Your task to perform on an android device: Search for asus zenbook on walmart.com, select the first entry, add it to the cart, then select checkout. Image 0: 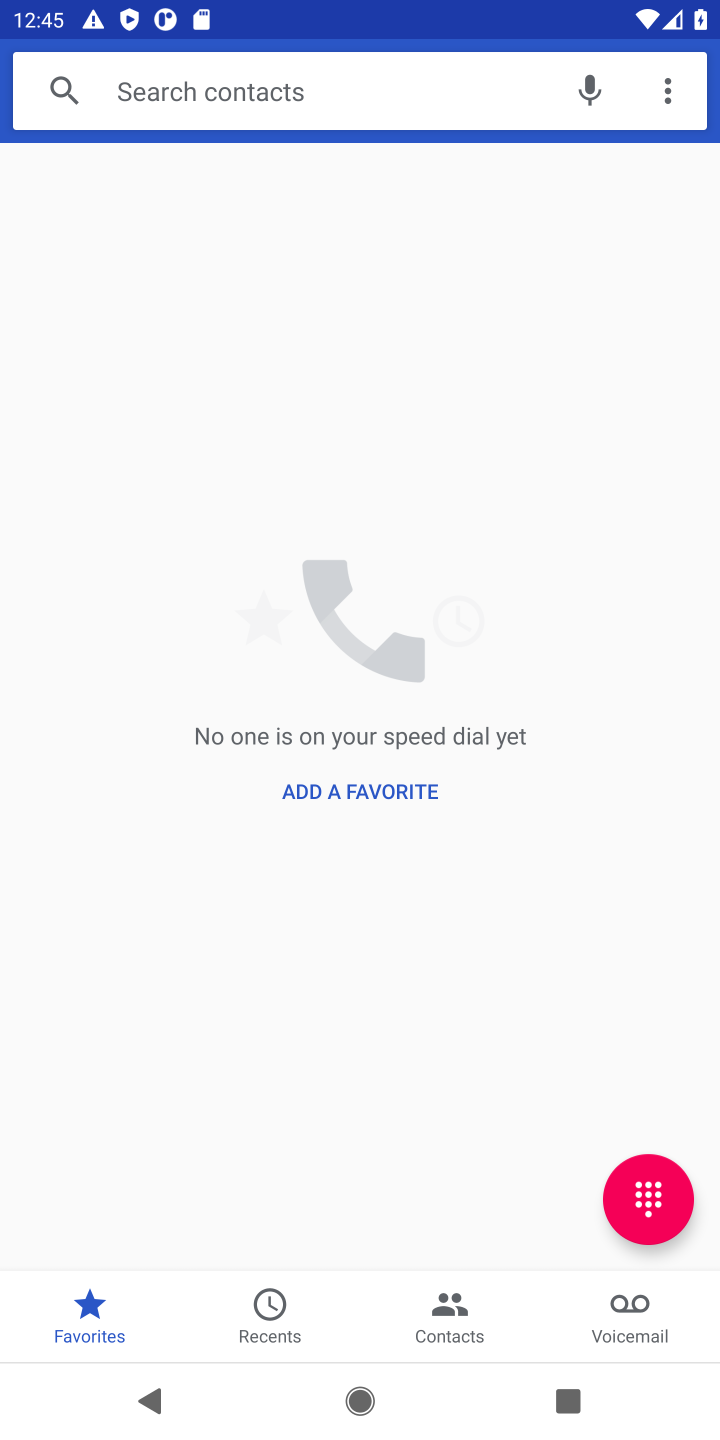
Step 0: press home button
Your task to perform on an android device: Search for asus zenbook on walmart.com, select the first entry, add it to the cart, then select checkout. Image 1: 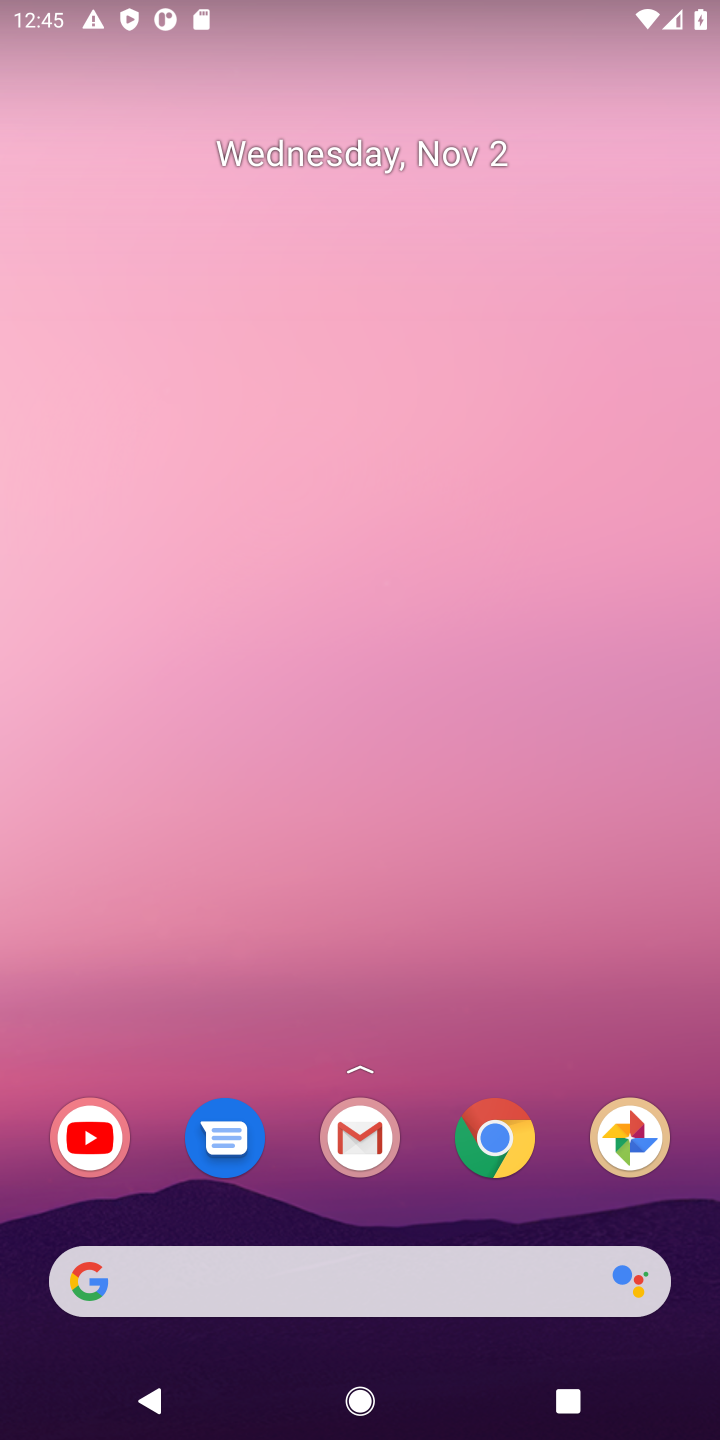
Step 1: click (121, 1279)
Your task to perform on an android device: Search for asus zenbook on walmart.com, select the first entry, add it to the cart, then select checkout. Image 2: 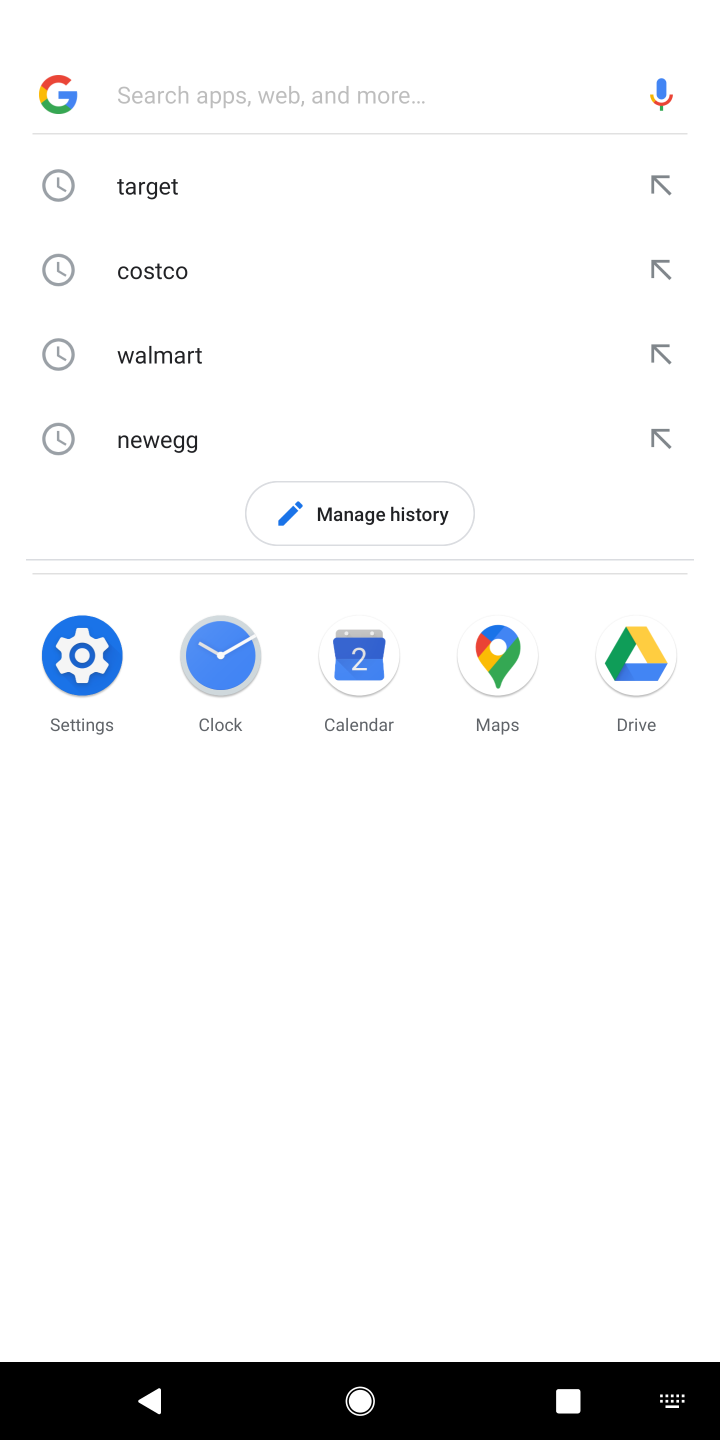
Step 2: type " walmart.com"
Your task to perform on an android device: Search for asus zenbook on walmart.com, select the first entry, add it to the cart, then select checkout. Image 3: 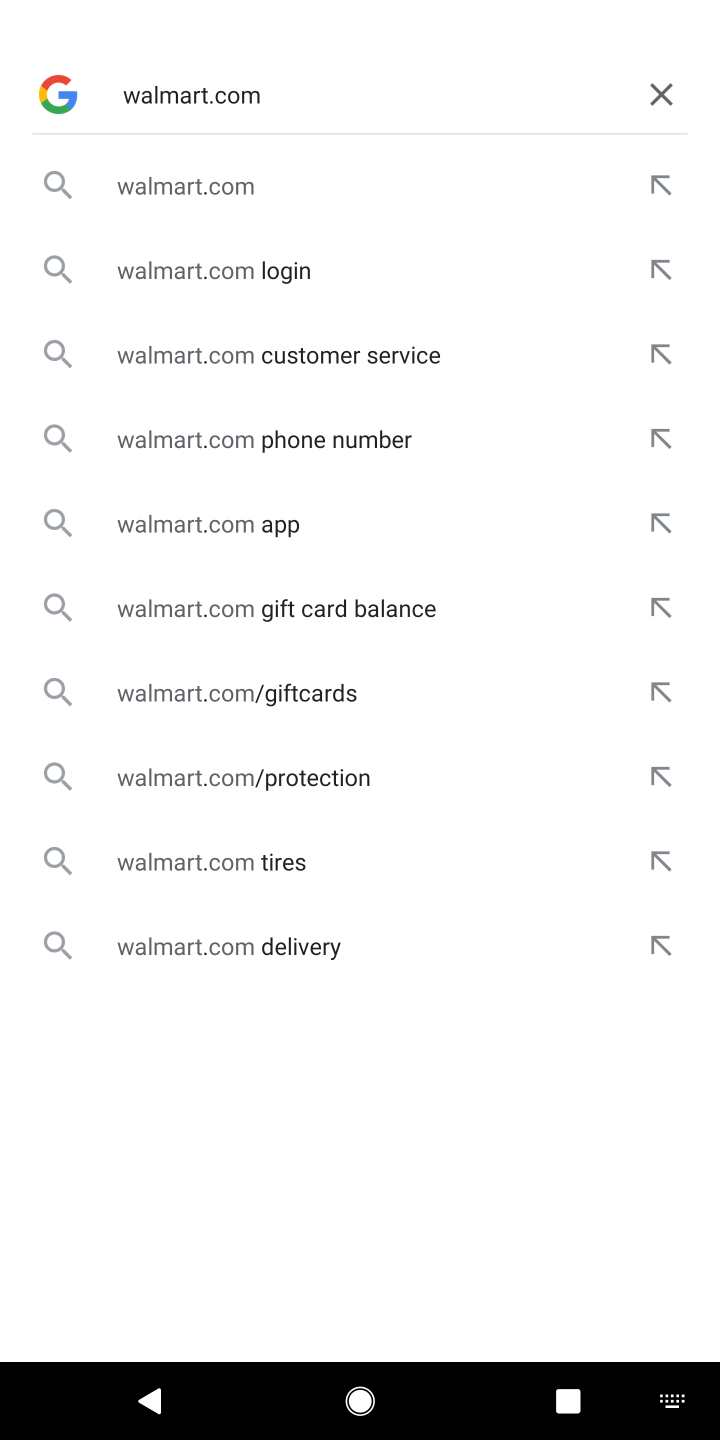
Step 3: press enter
Your task to perform on an android device: Search for asus zenbook on walmart.com, select the first entry, add it to the cart, then select checkout. Image 4: 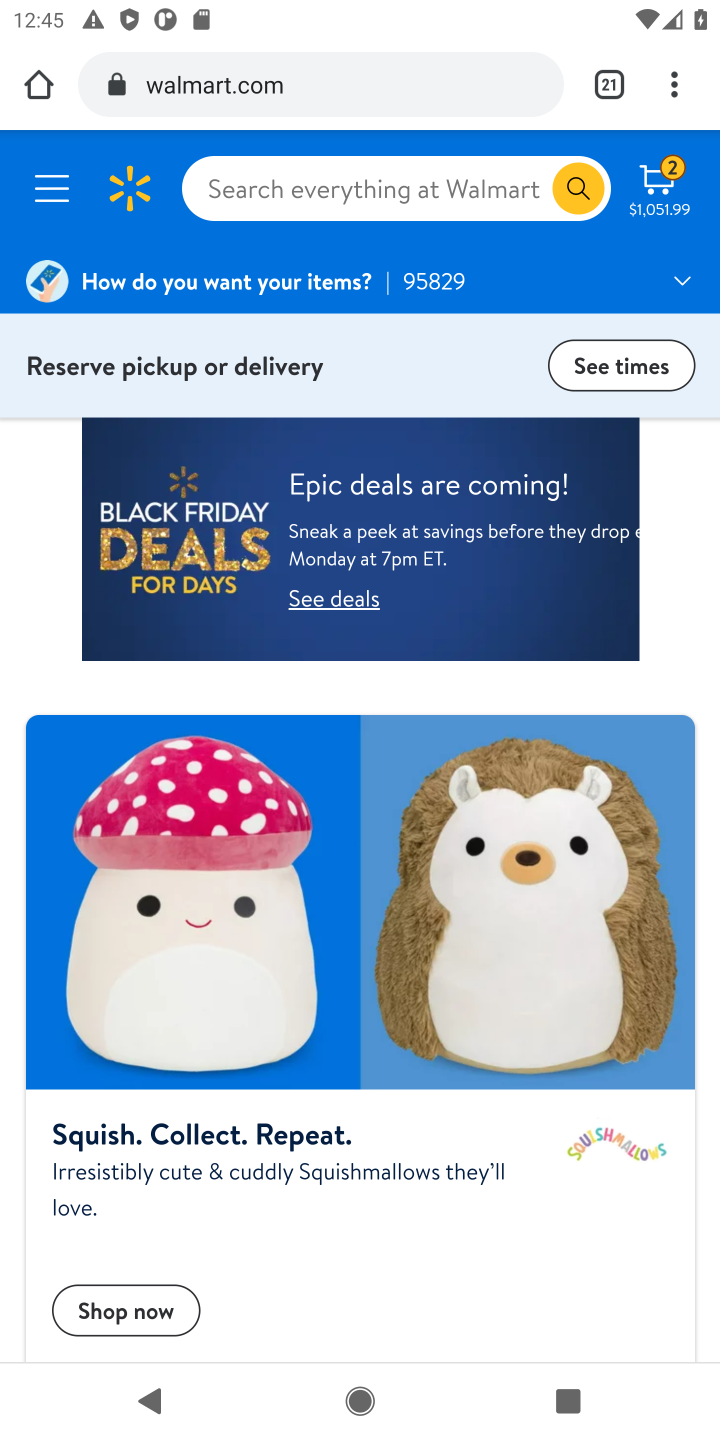
Step 4: click (227, 186)
Your task to perform on an android device: Search for asus zenbook on walmart.com, select the first entry, add it to the cart, then select checkout. Image 5: 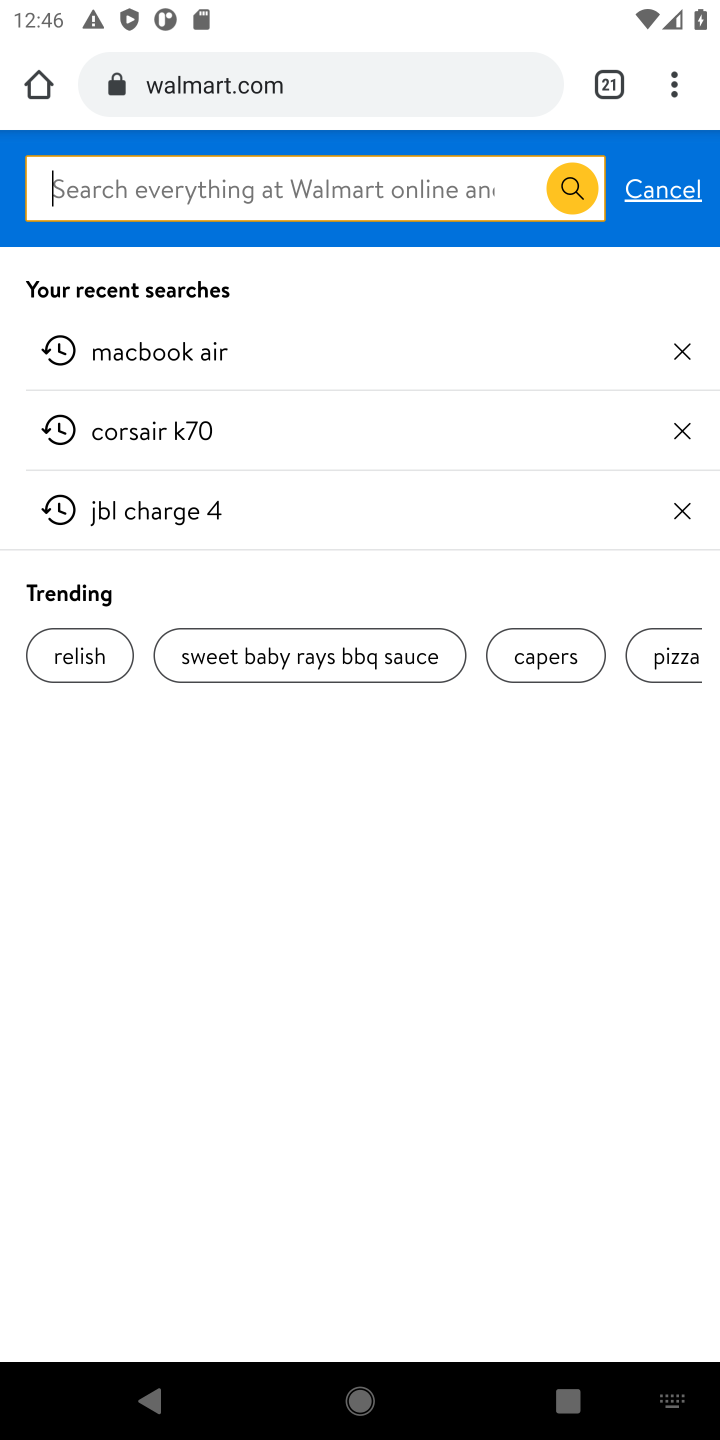
Step 5: type "asus zenbook"
Your task to perform on an android device: Search for asus zenbook on walmart.com, select the first entry, add it to the cart, then select checkout. Image 6: 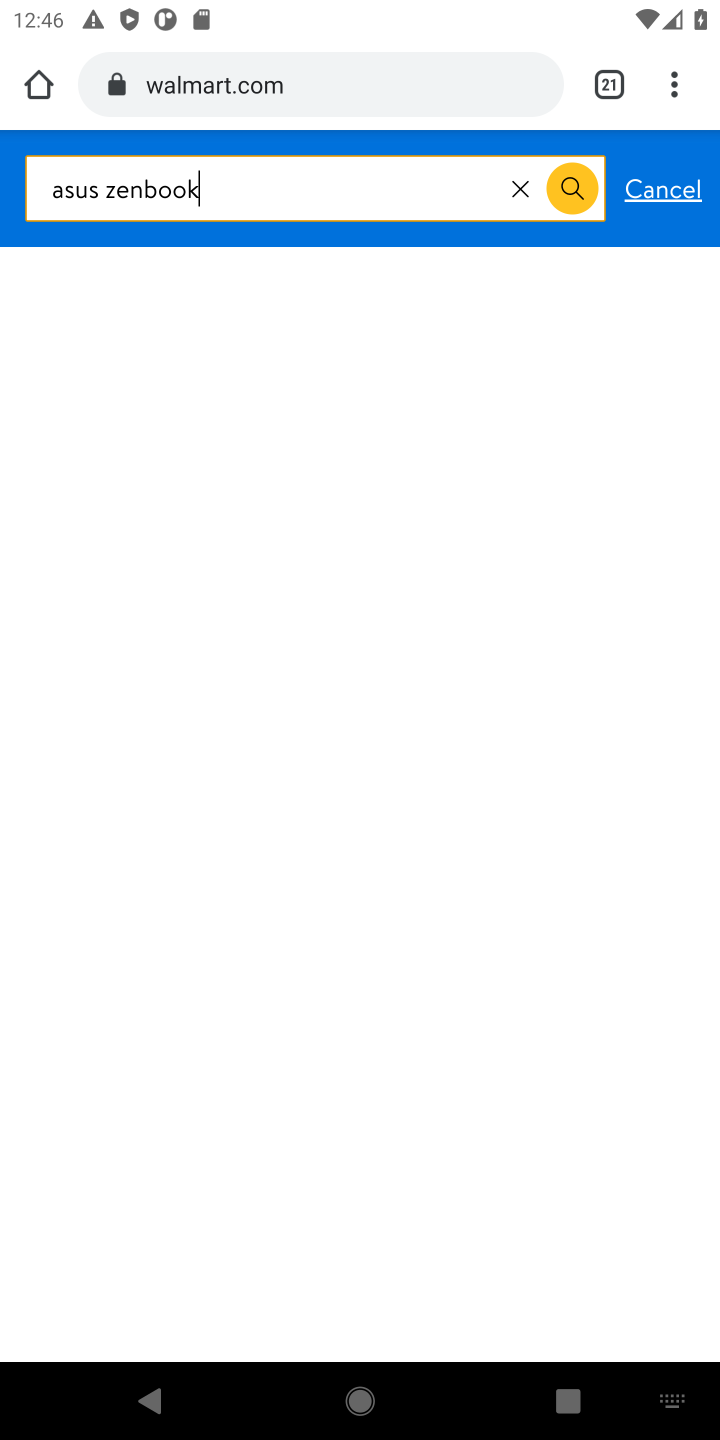
Step 6: press enter
Your task to perform on an android device: Search for asus zenbook on walmart.com, select the first entry, add it to the cart, then select checkout. Image 7: 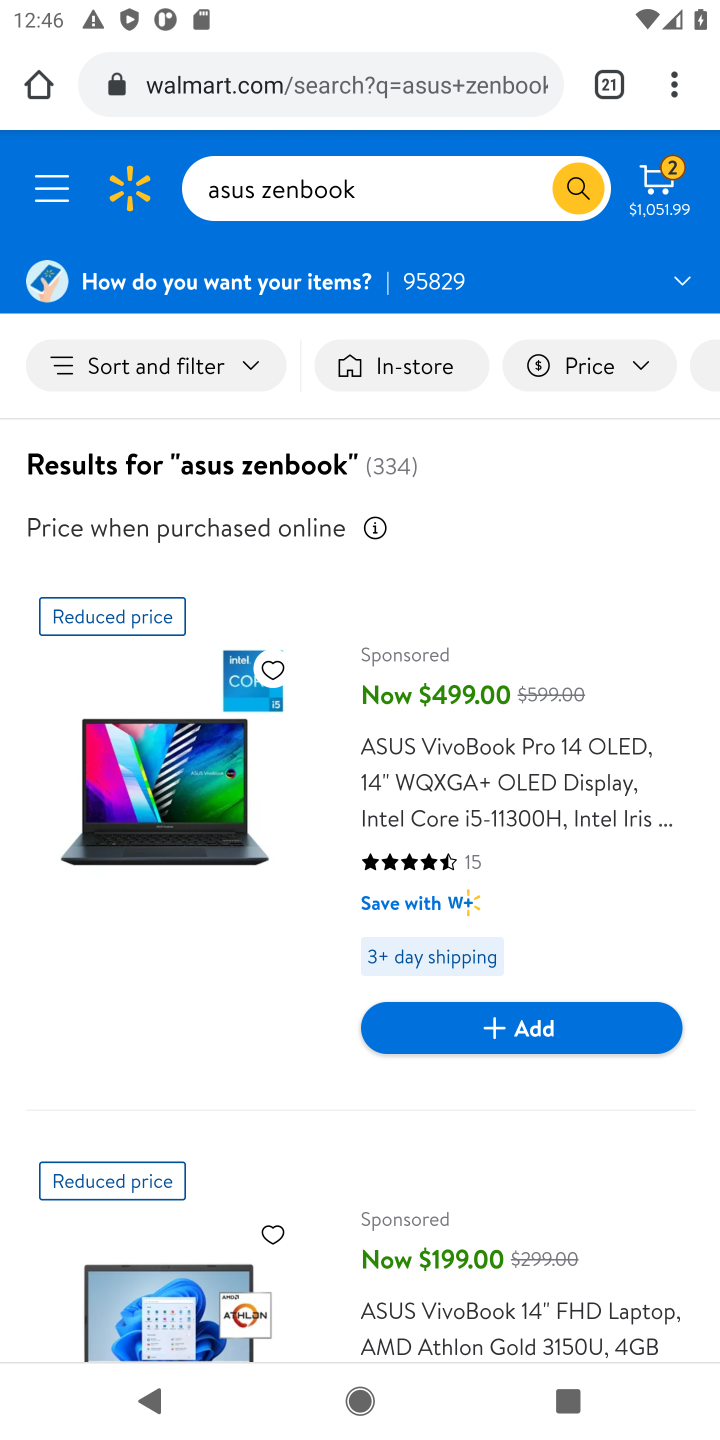
Step 7: drag from (480, 1130) to (514, 695)
Your task to perform on an android device: Search for asus zenbook on walmart.com, select the first entry, add it to the cart, then select checkout. Image 8: 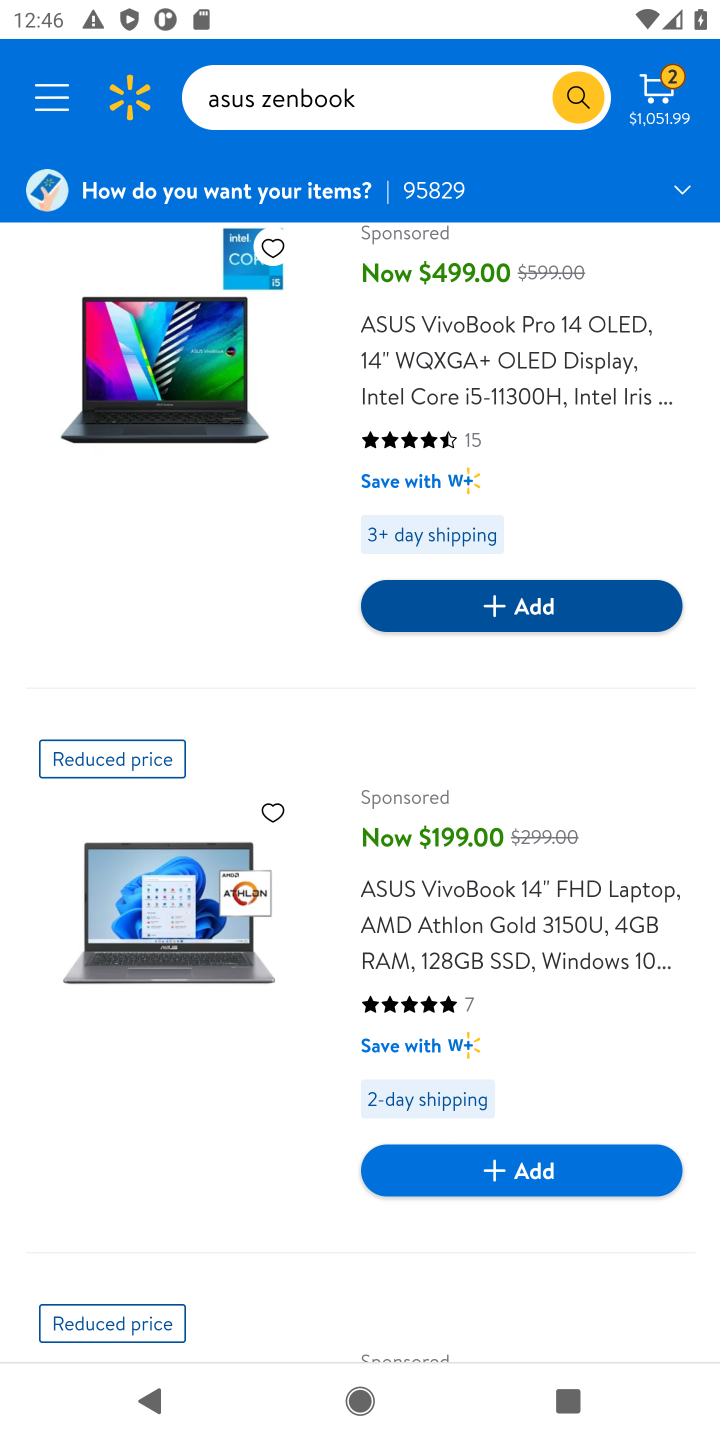
Step 8: drag from (460, 1055) to (525, 648)
Your task to perform on an android device: Search for asus zenbook on walmart.com, select the first entry, add it to the cart, then select checkout. Image 9: 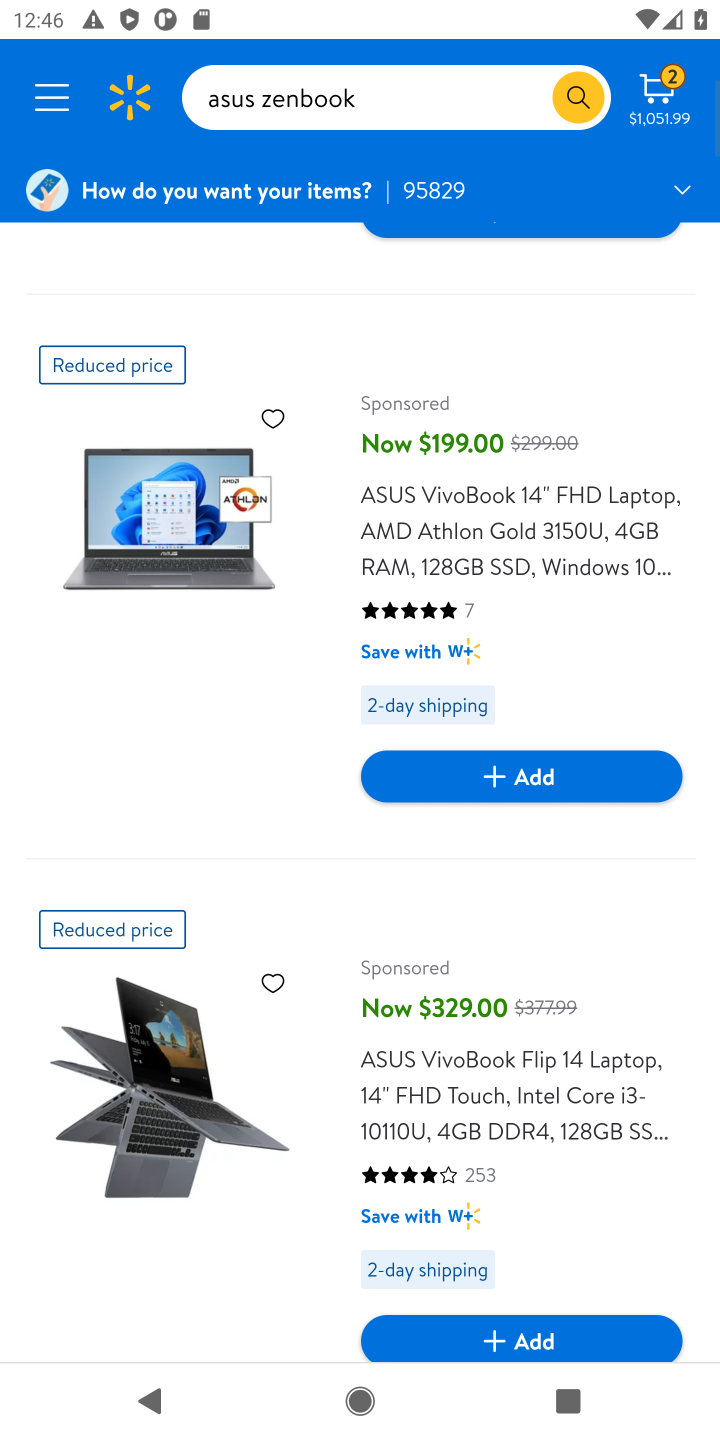
Step 9: drag from (490, 1057) to (510, 729)
Your task to perform on an android device: Search for asus zenbook on walmart.com, select the first entry, add it to the cart, then select checkout. Image 10: 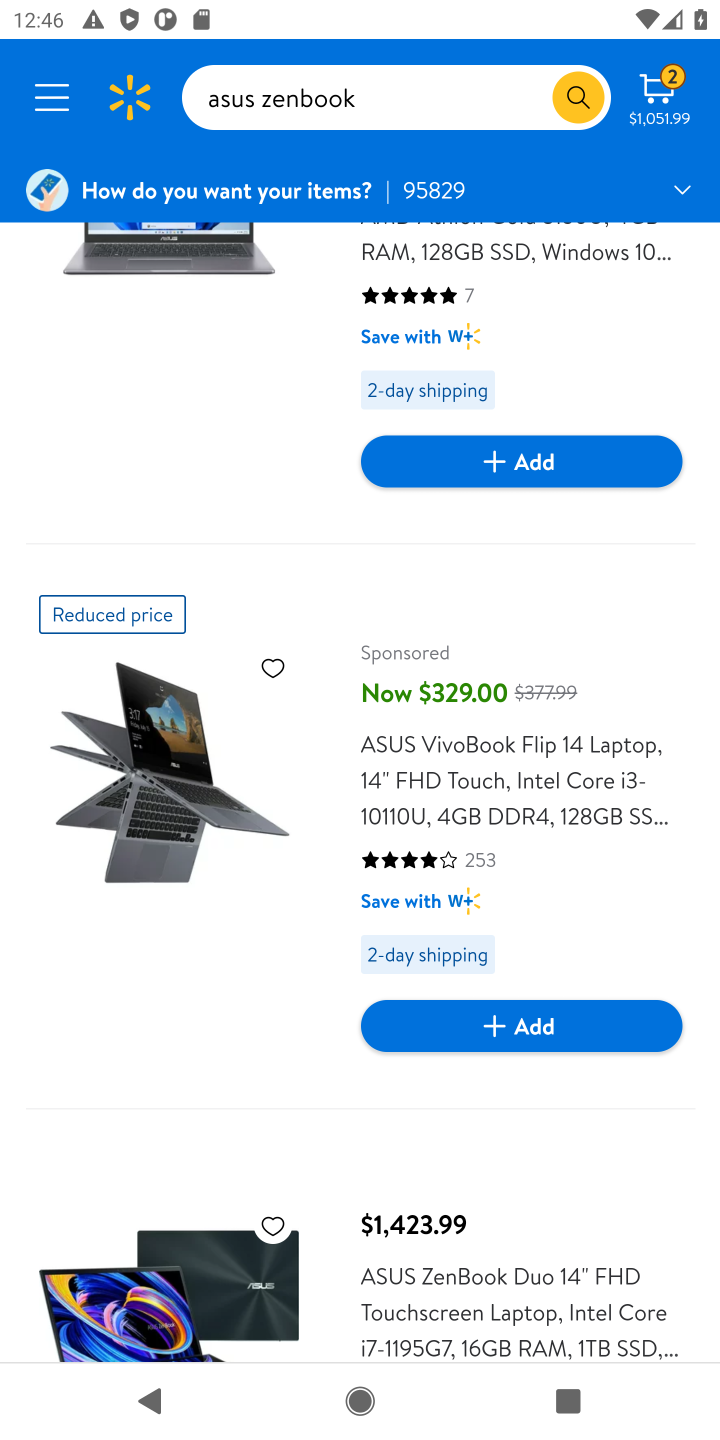
Step 10: drag from (491, 1179) to (527, 836)
Your task to perform on an android device: Search for asus zenbook on walmart.com, select the first entry, add it to the cart, then select checkout. Image 11: 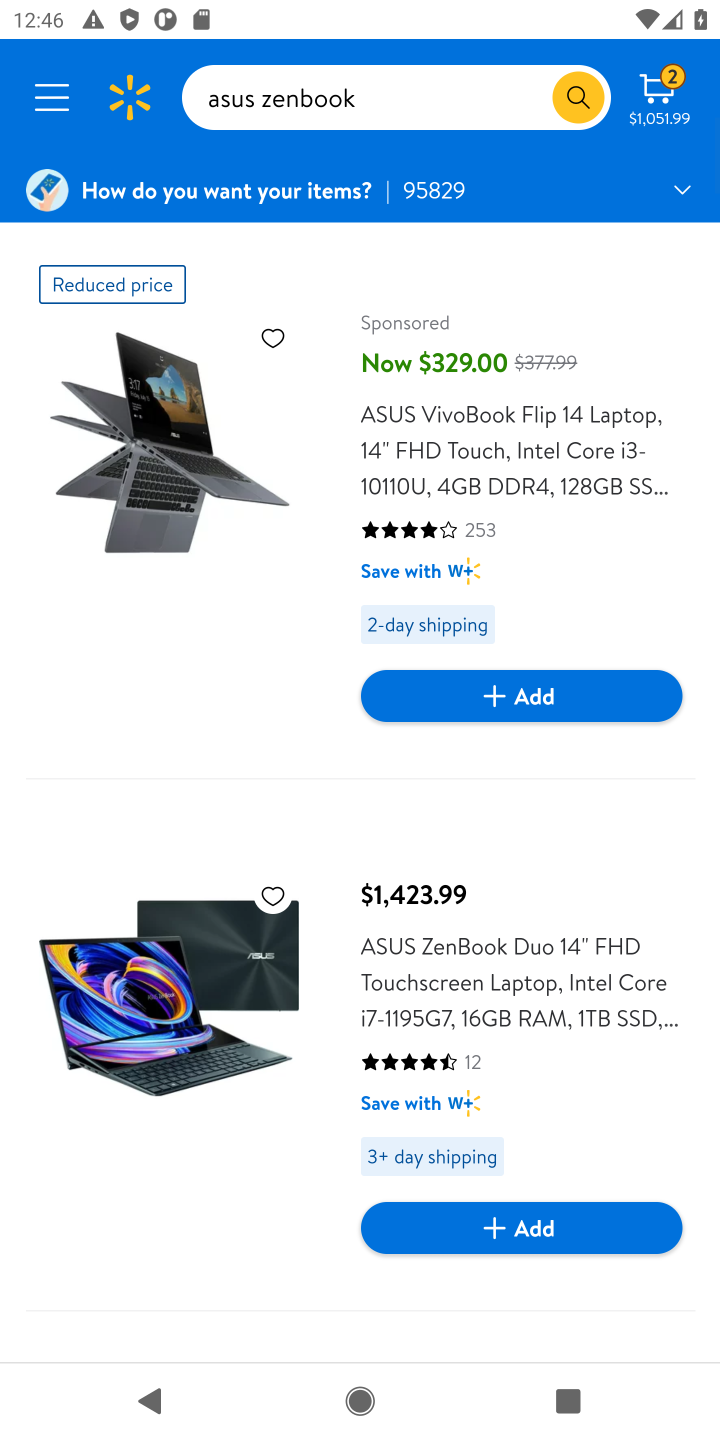
Step 11: drag from (502, 1125) to (529, 780)
Your task to perform on an android device: Search for asus zenbook on walmart.com, select the first entry, add it to the cart, then select checkout. Image 12: 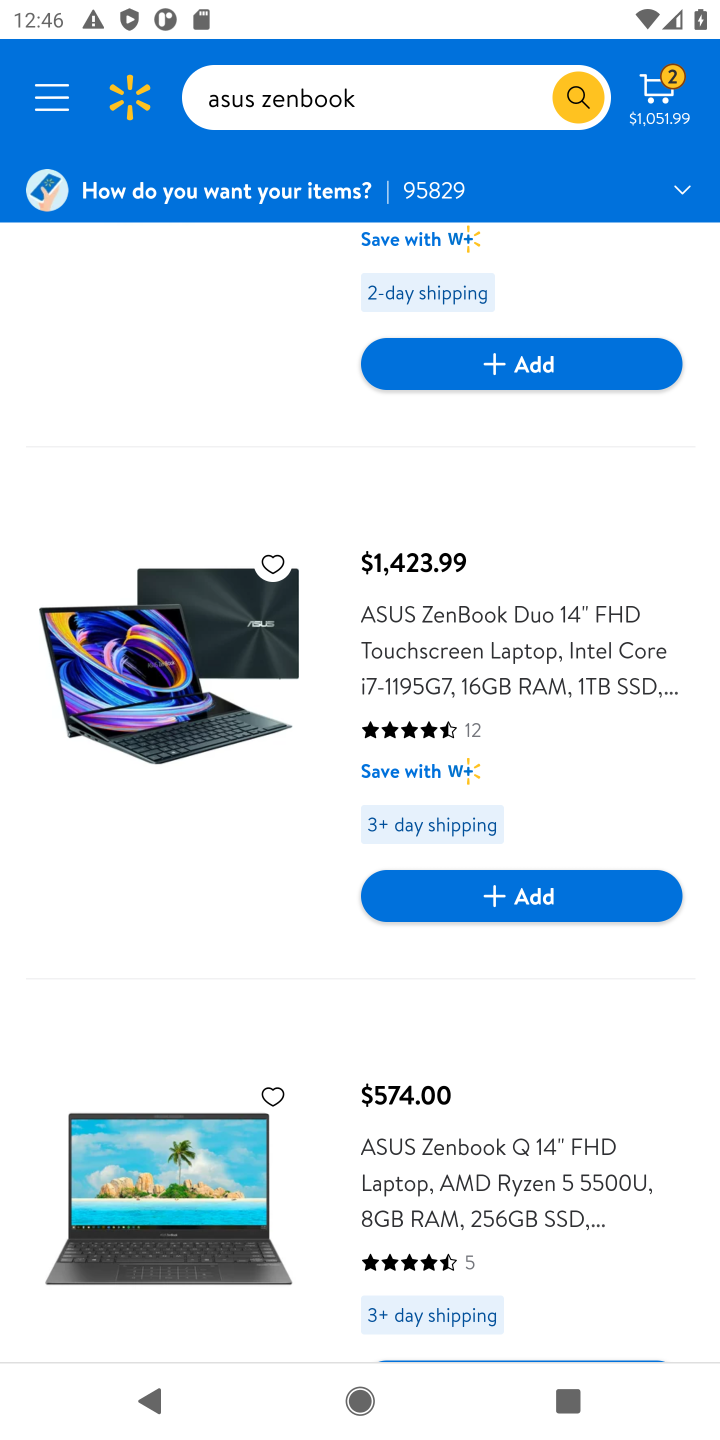
Step 12: drag from (469, 1085) to (534, 759)
Your task to perform on an android device: Search for asus zenbook on walmart.com, select the first entry, add it to the cart, then select checkout. Image 13: 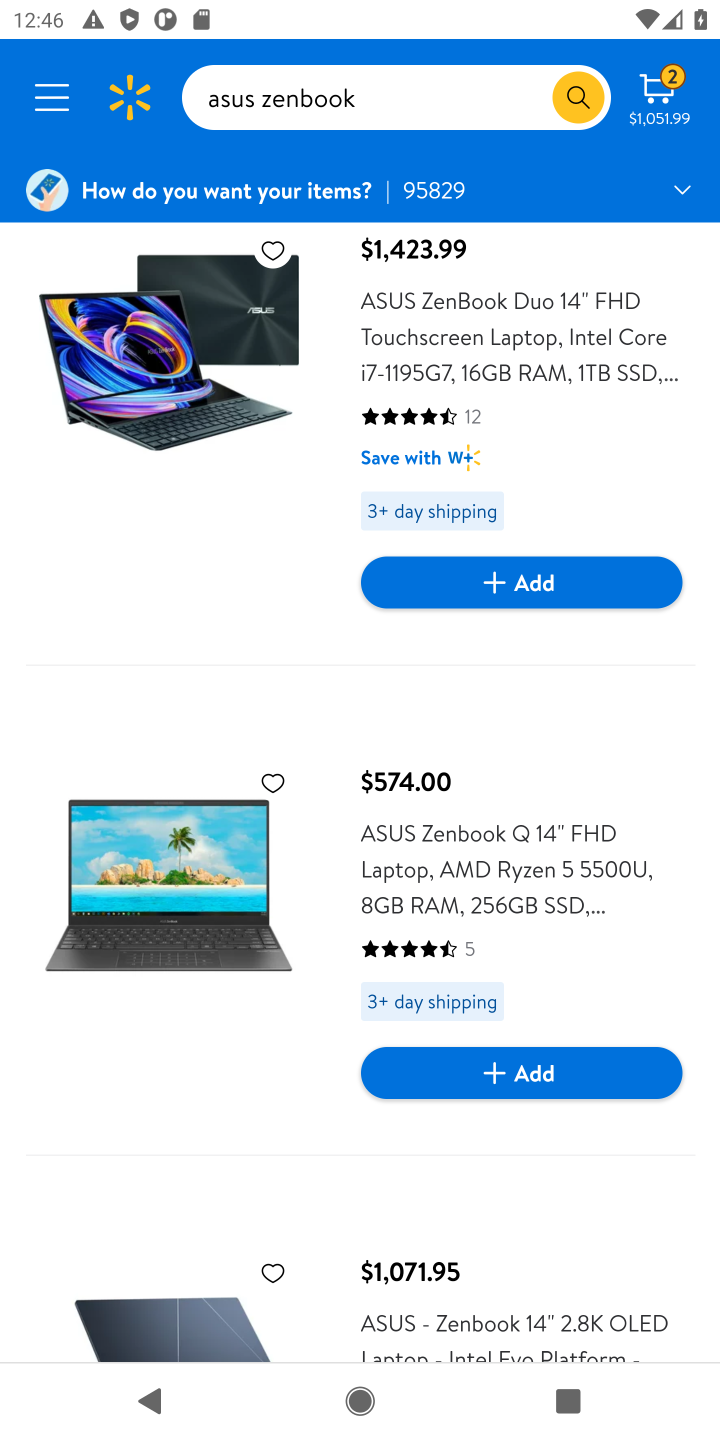
Step 13: click (531, 1085)
Your task to perform on an android device: Search for asus zenbook on walmart.com, select the first entry, add it to the cart, then select checkout. Image 14: 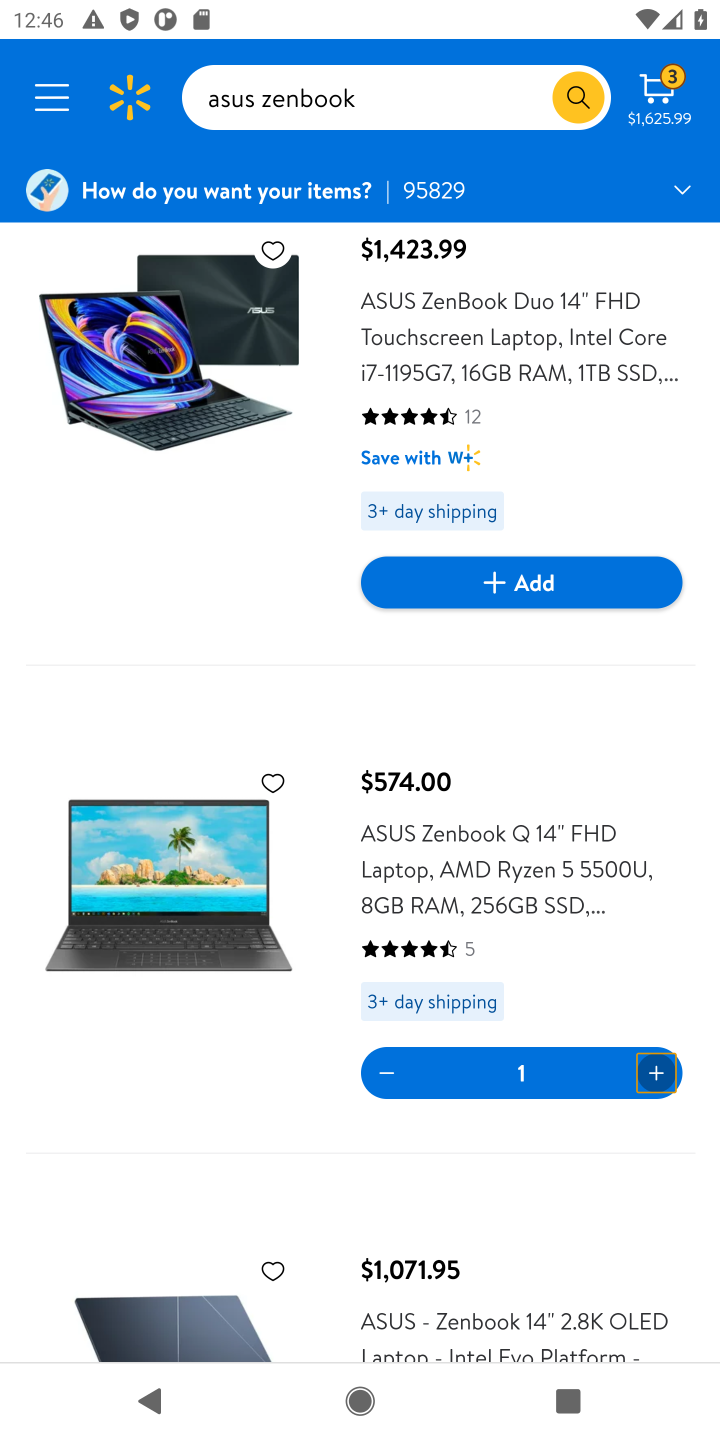
Step 14: click (666, 85)
Your task to perform on an android device: Search for asus zenbook on walmart.com, select the first entry, add it to the cart, then select checkout. Image 15: 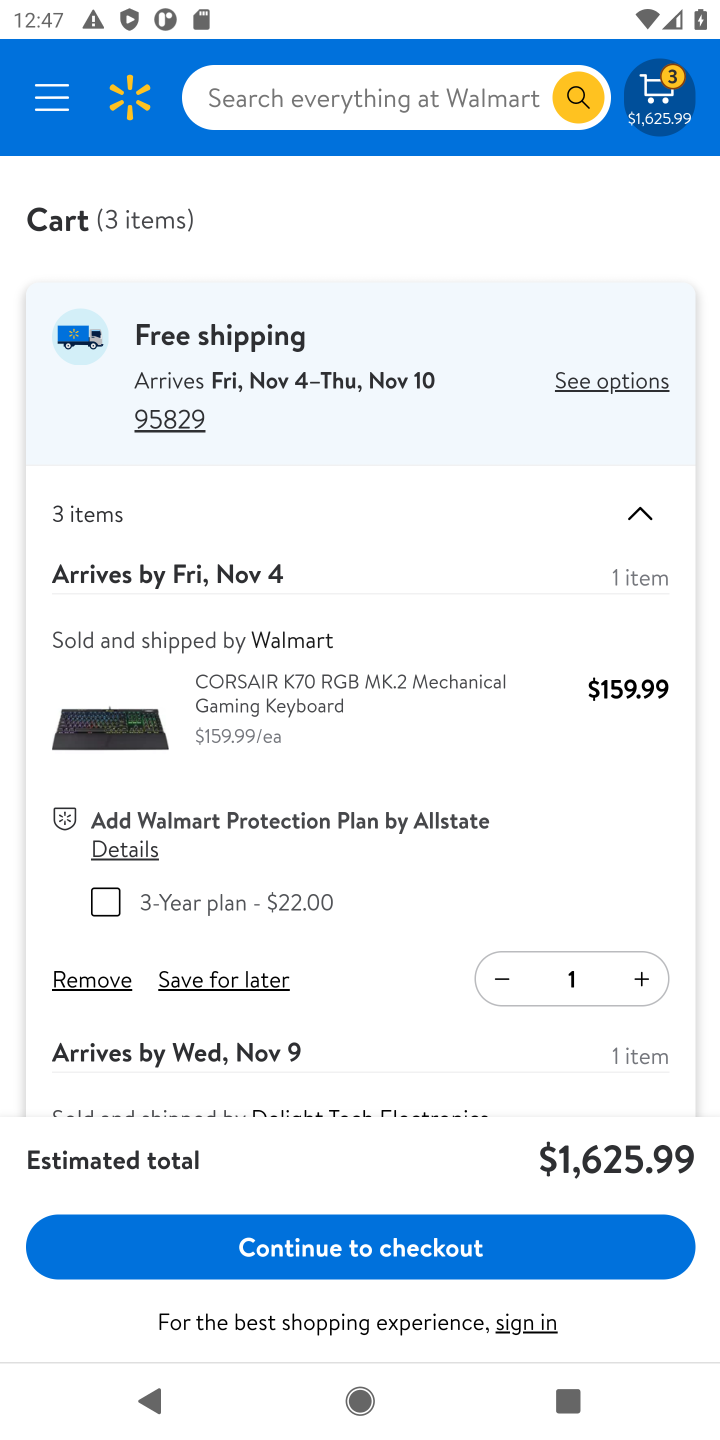
Step 15: click (352, 1253)
Your task to perform on an android device: Search for asus zenbook on walmart.com, select the first entry, add it to the cart, then select checkout. Image 16: 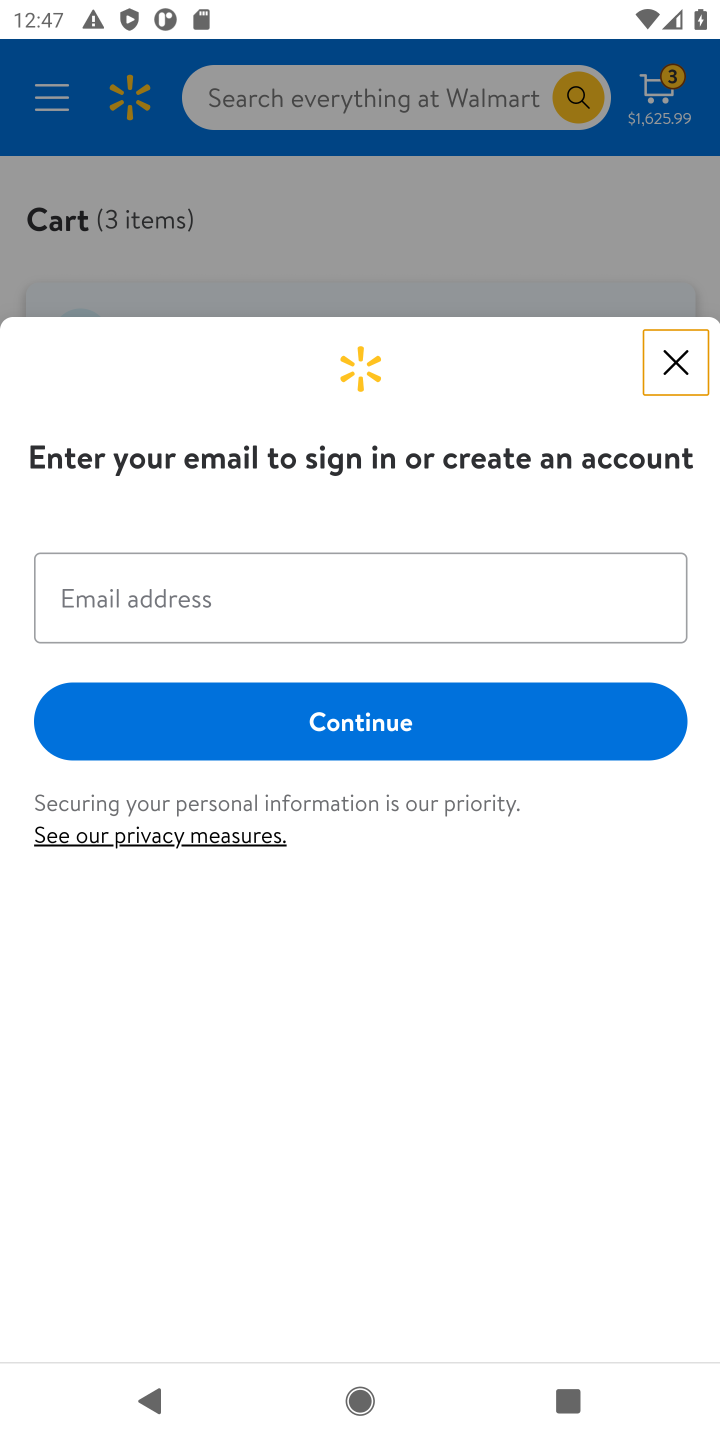
Step 16: task complete